Your task to perform on an android device: check android version Image 0: 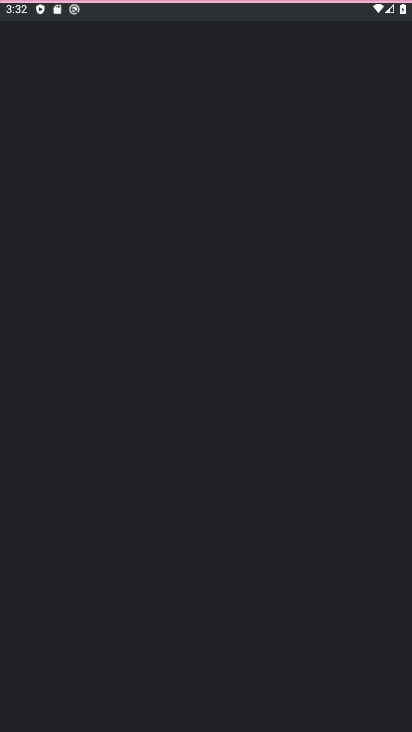
Step 0: press home button
Your task to perform on an android device: check android version Image 1: 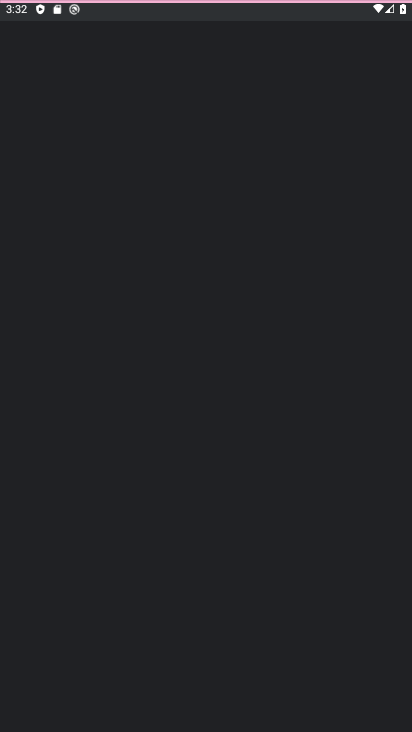
Step 1: click (96, 53)
Your task to perform on an android device: check android version Image 2: 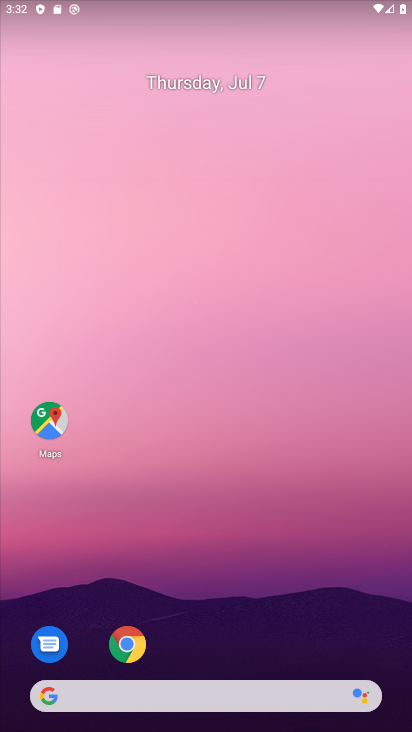
Step 2: drag from (296, 613) to (252, 221)
Your task to perform on an android device: check android version Image 3: 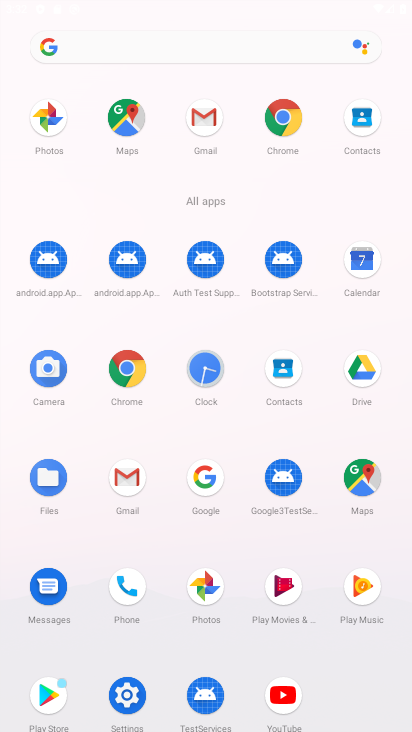
Step 3: click (118, 663)
Your task to perform on an android device: check android version Image 4: 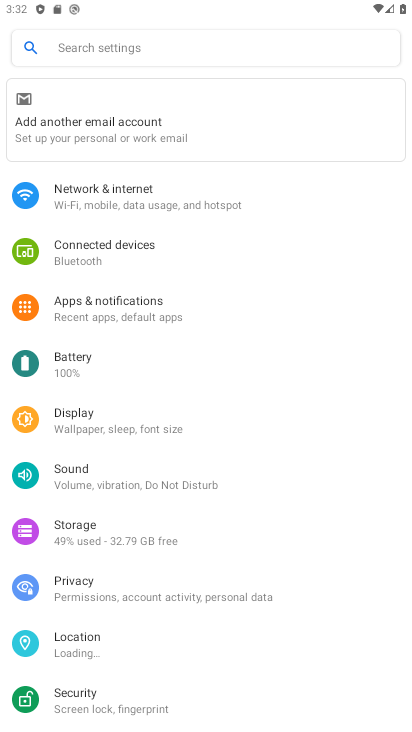
Step 4: drag from (288, 689) to (173, 156)
Your task to perform on an android device: check android version Image 5: 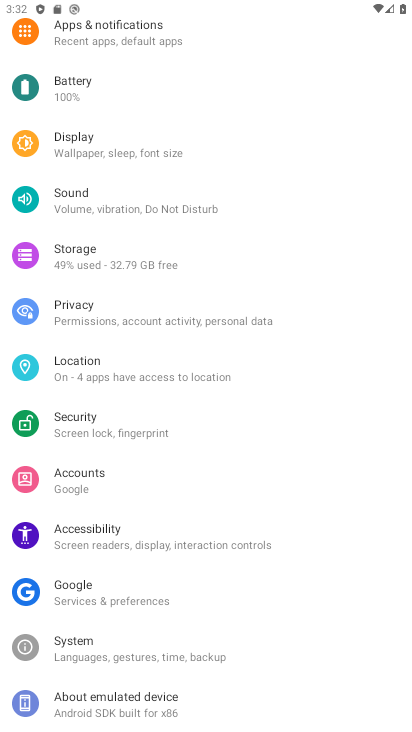
Step 5: click (205, 706)
Your task to perform on an android device: check android version Image 6: 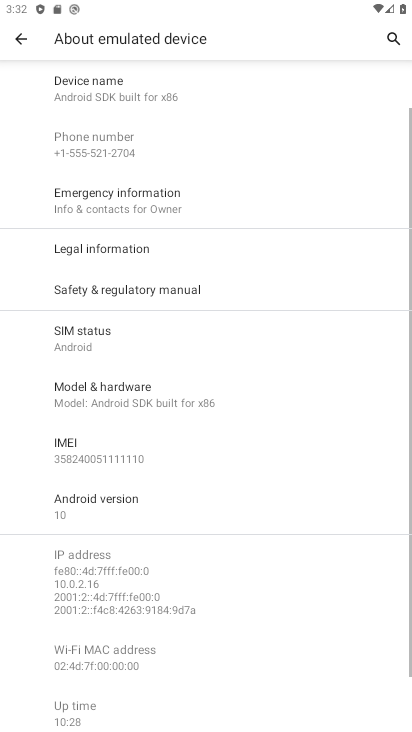
Step 6: click (83, 500)
Your task to perform on an android device: check android version Image 7: 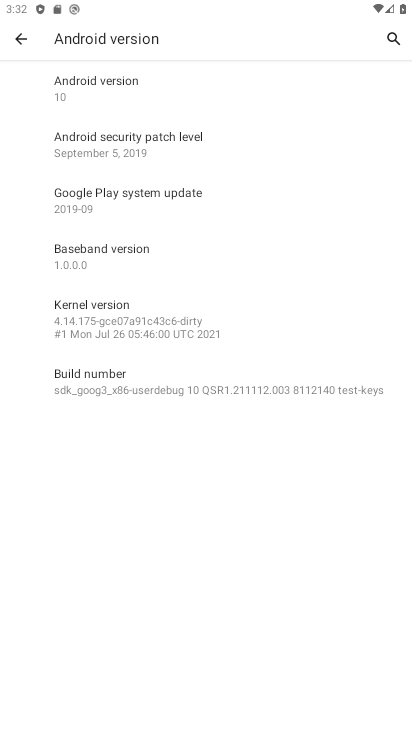
Step 7: click (134, 96)
Your task to perform on an android device: check android version Image 8: 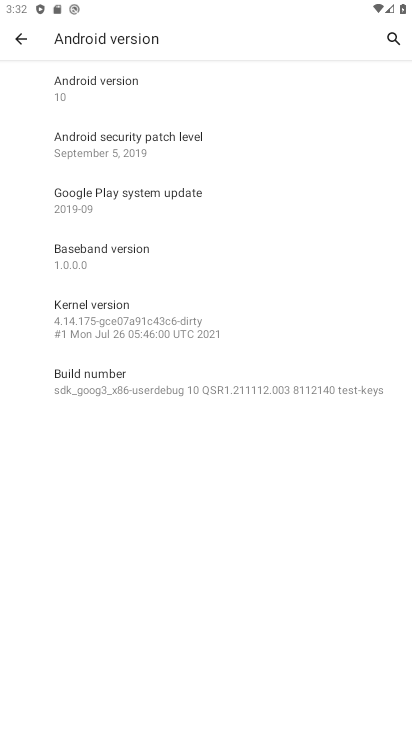
Step 8: task complete